Your task to perform on an android device: find which apps use the phone's location Image 0: 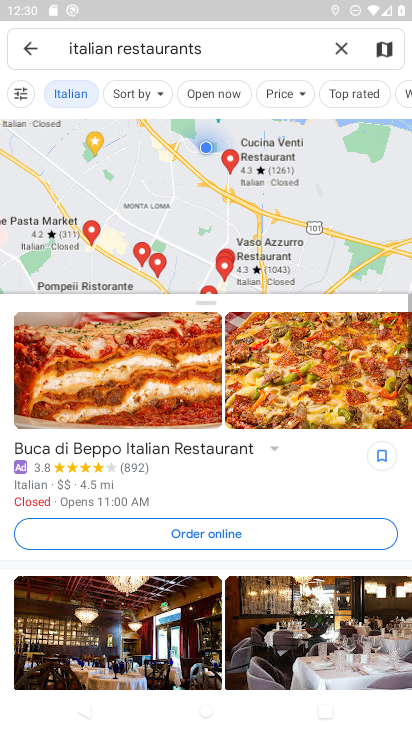
Step 0: press home button
Your task to perform on an android device: find which apps use the phone's location Image 1: 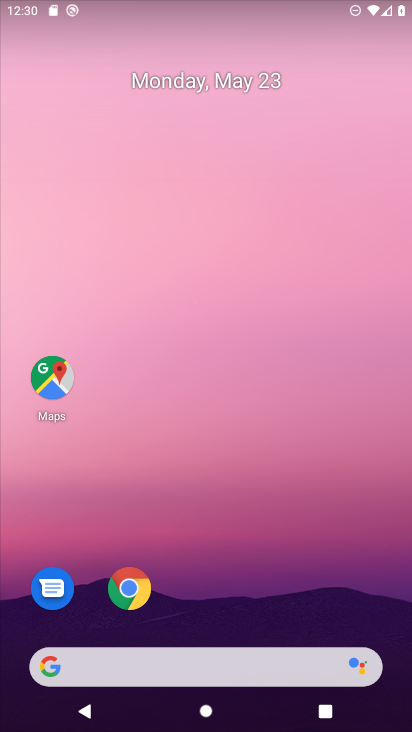
Step 1: drag from (206, 647) to (213, 306)
Your task to perform on an android device: find which apps use the phone's location Image 2: 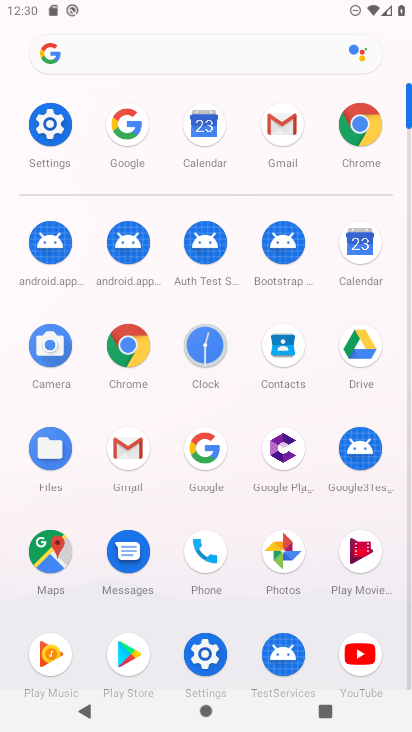
Step 2: click (204, 654)
Your task to perform on an android device: find which apps use the phone's location Image 3: 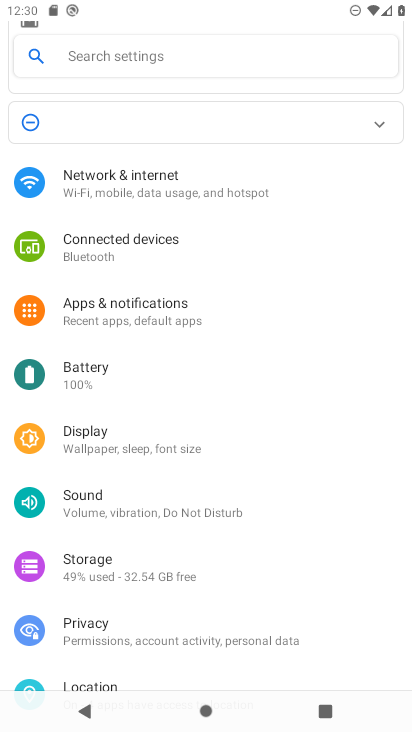
Step 3: drag from (114, 681) to (177, 289)
Your task to perform on an android device: find which apps use the phone's location Image 4: 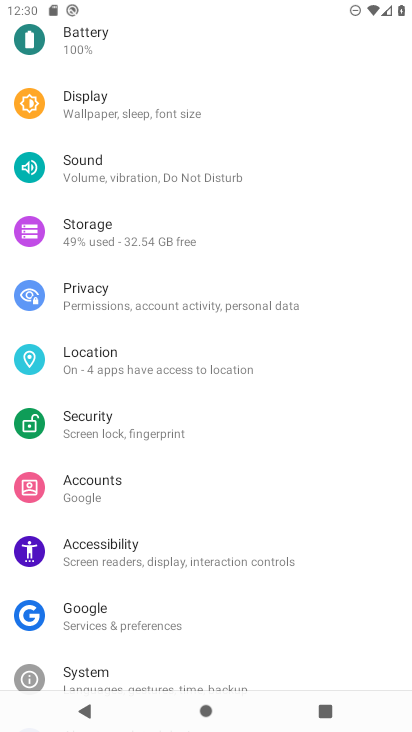
Step 4: click (113, 363)
Your task to perform on an android device: find which apps use the phone's location Image 5: 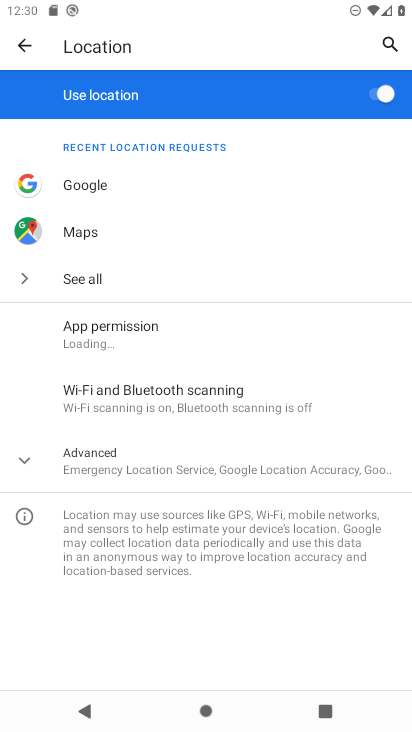
Step 5: click (122, 460)
Your task to perform on an android device: find which apps use the phone's location Image 6: 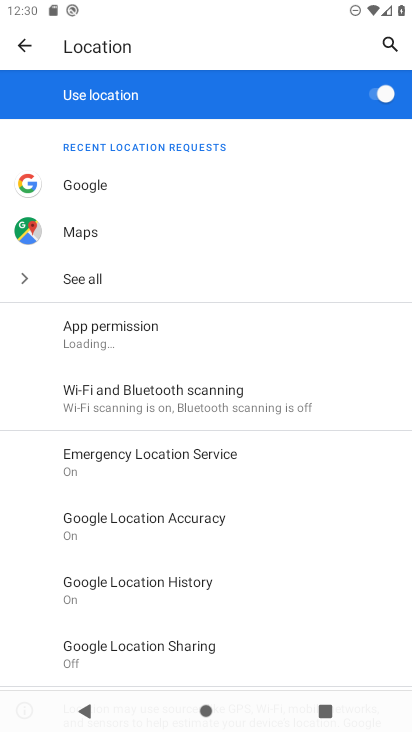
Step 6: drag from (127, 656) to (159, 329)
Your task to perform on an android device: find which apps use the phone's location Image 7: 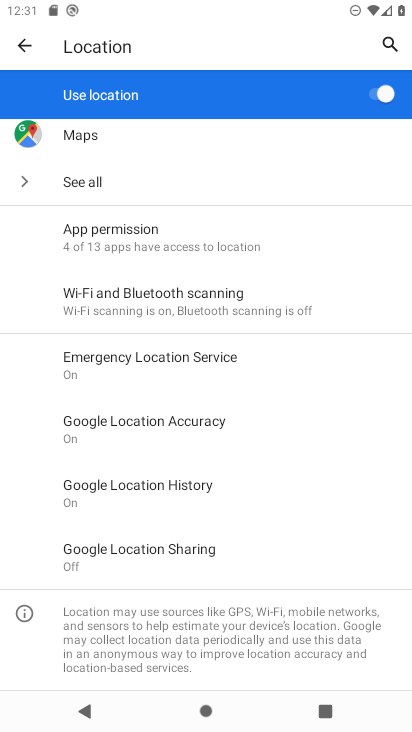
Step 7: click (134, 237)
Your task to perform on an android device: find which apps use the phone's location Image 8: 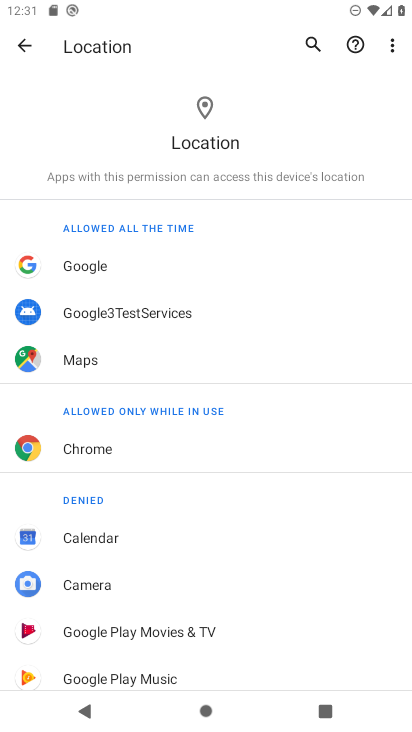
Step 8: task complete